Your task to perform on an android device: uninstall "Facebook" Image 0: 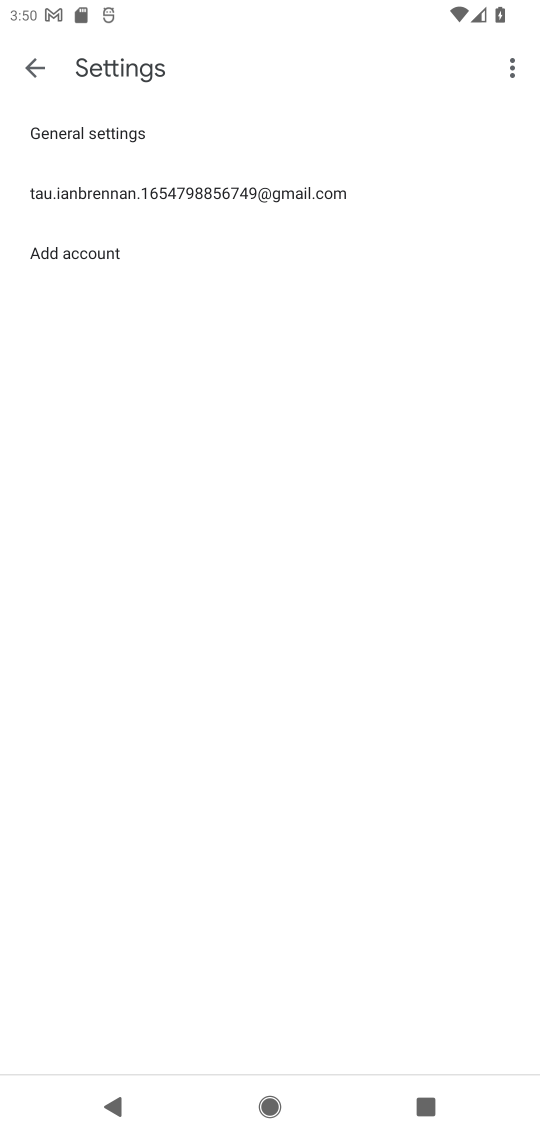
Step 0: press home button
Your task to perform on an android device: uninstall "Facebook" Image 1: 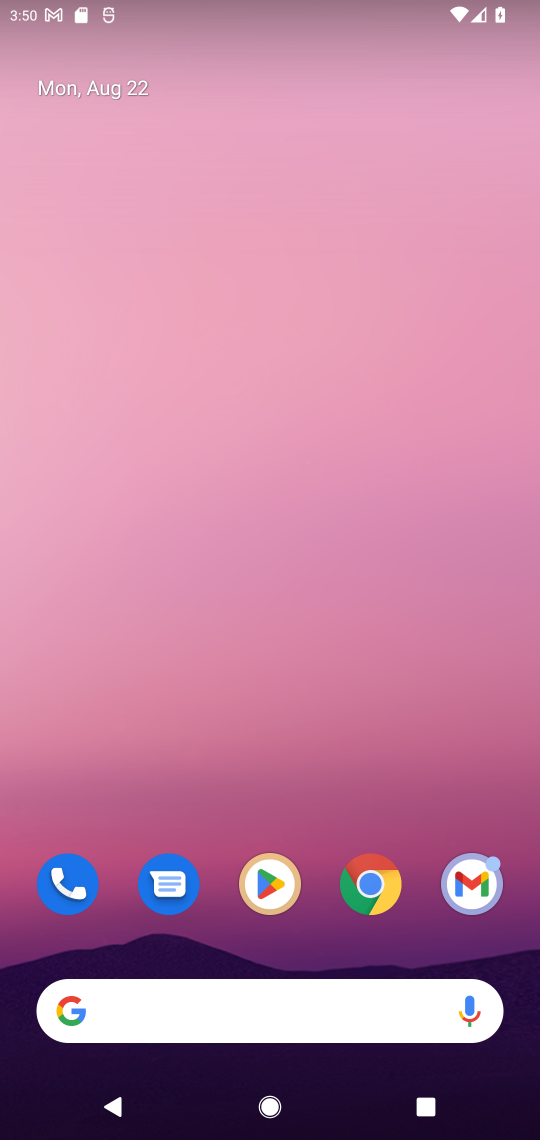
Step 1: click (267, 881)
Your task to perform on an android device: uninstall "Facebook" Image 2: 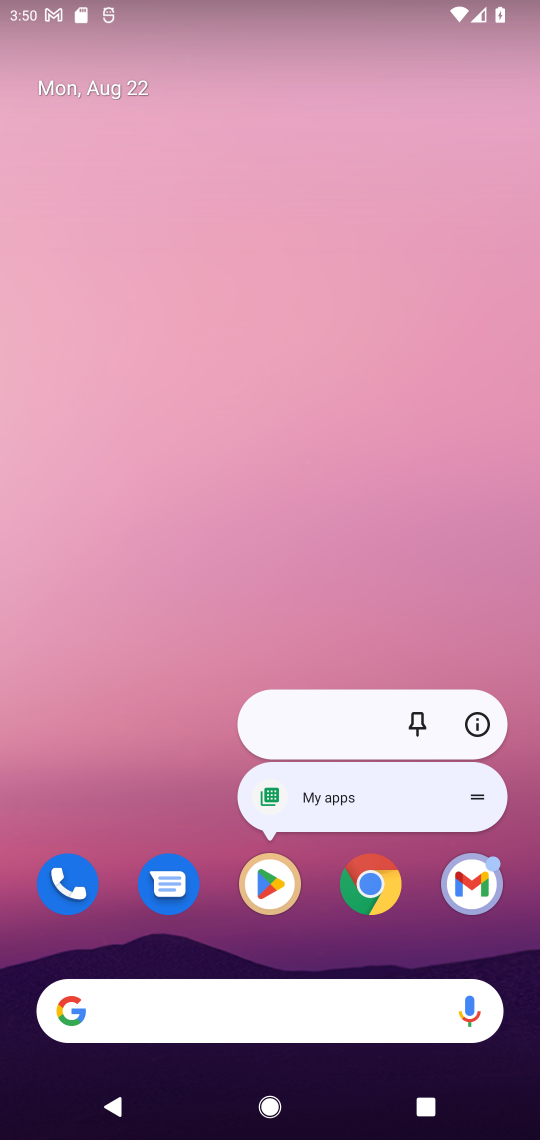
Step 2: click (280, 873)
Your task to perform on an android device: uninstall "Facebook" Image 3: 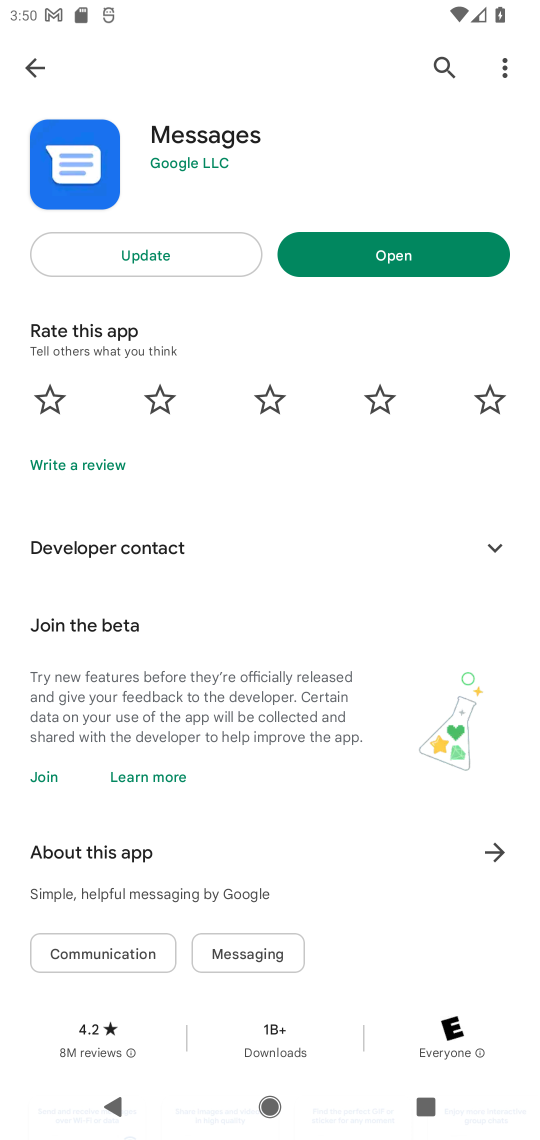
Step 3: click (39, 46)
Your task to perform on an android device: uninstall "Facebook" Image 4: 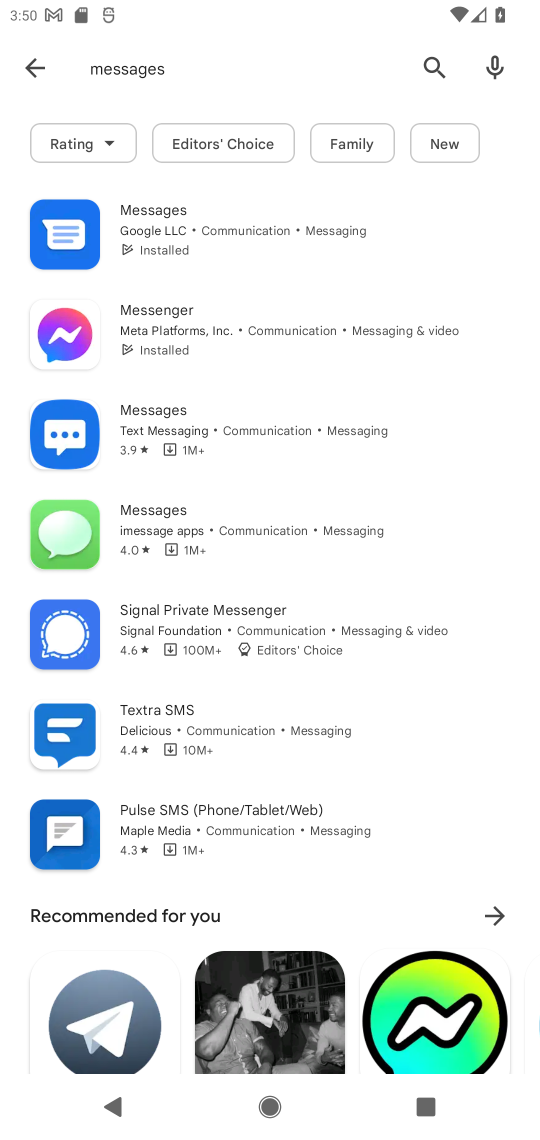
Step 4: click (126, 60)
Your task to perform on an android device: uninstall "Facebook" Image 5: 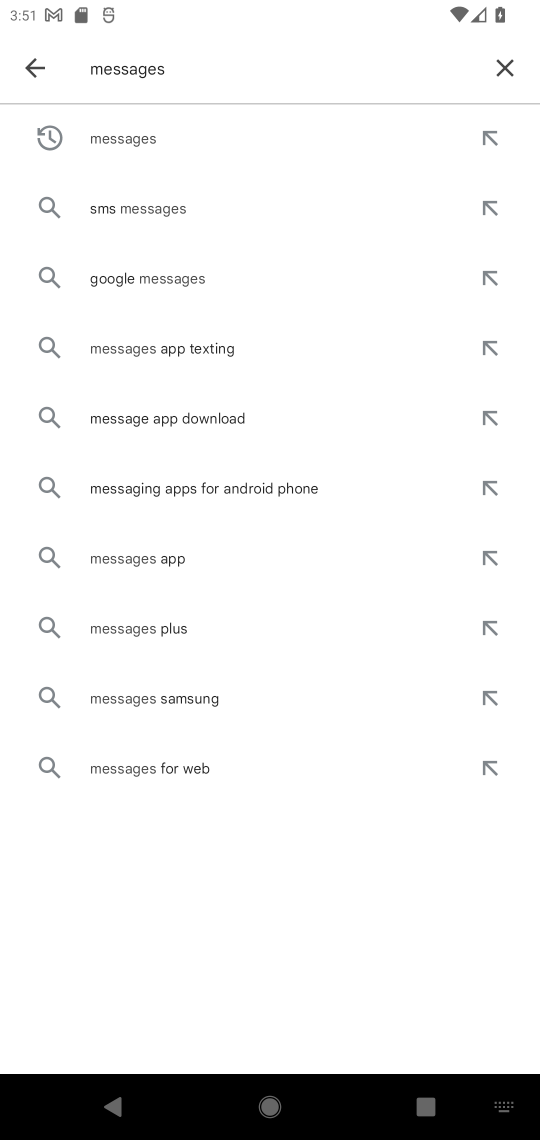
Step 5: click (505, 56)
Your task to perform on an android device: uninstall "Facebook" Image 6: 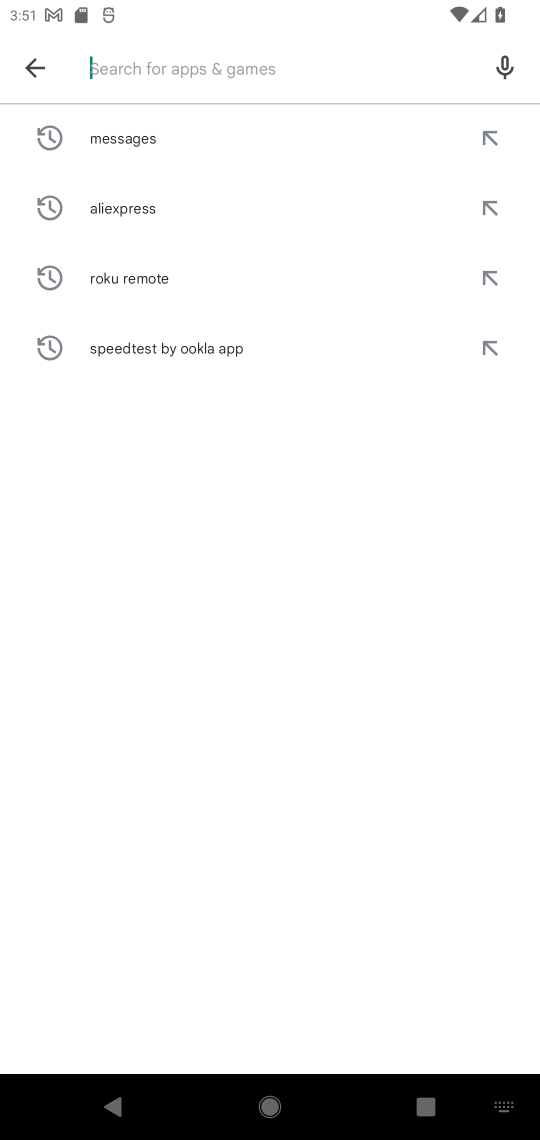
Step 6: type "facebook"
Your task to perform on an android device: uninstall "Facebook" Image 7: 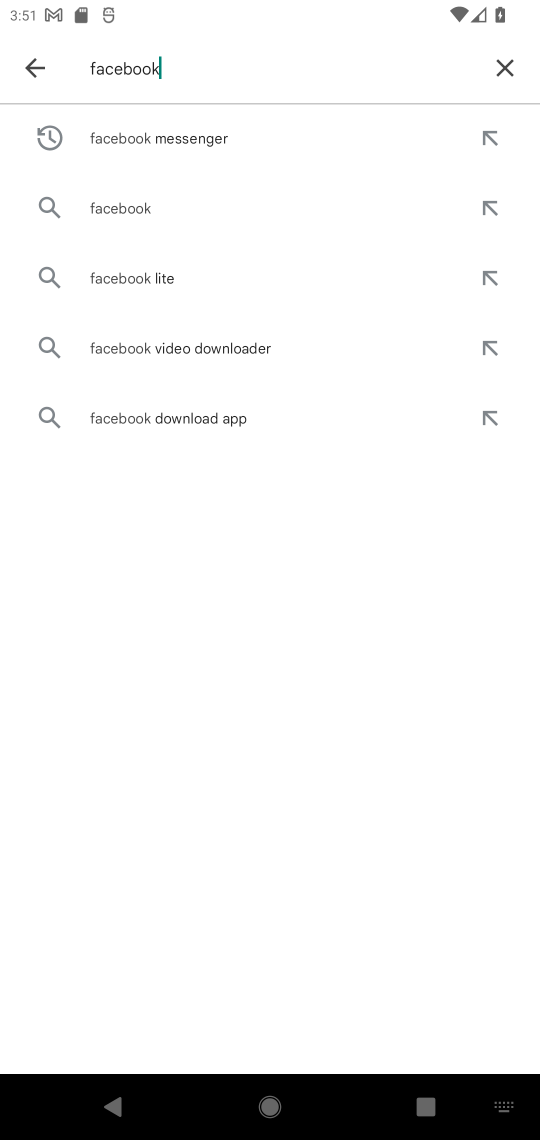
Step 7: click (127, 196)
Your task to perform on an android device: uninstall "Facebook" Image 8: 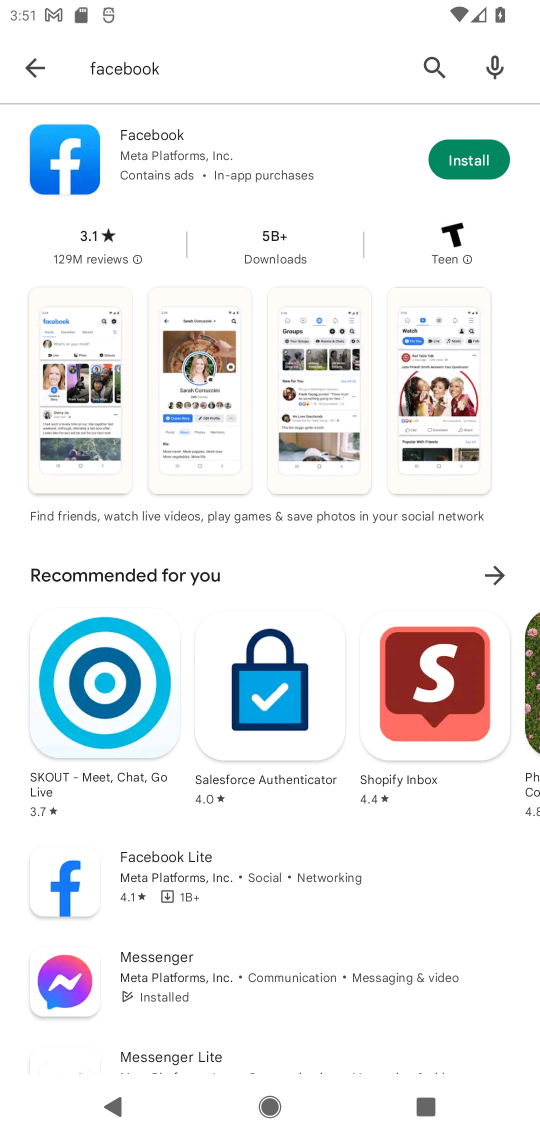
Step 8: task complete